Your task to perform on an android device: open app "Google Chrome" Image 0: 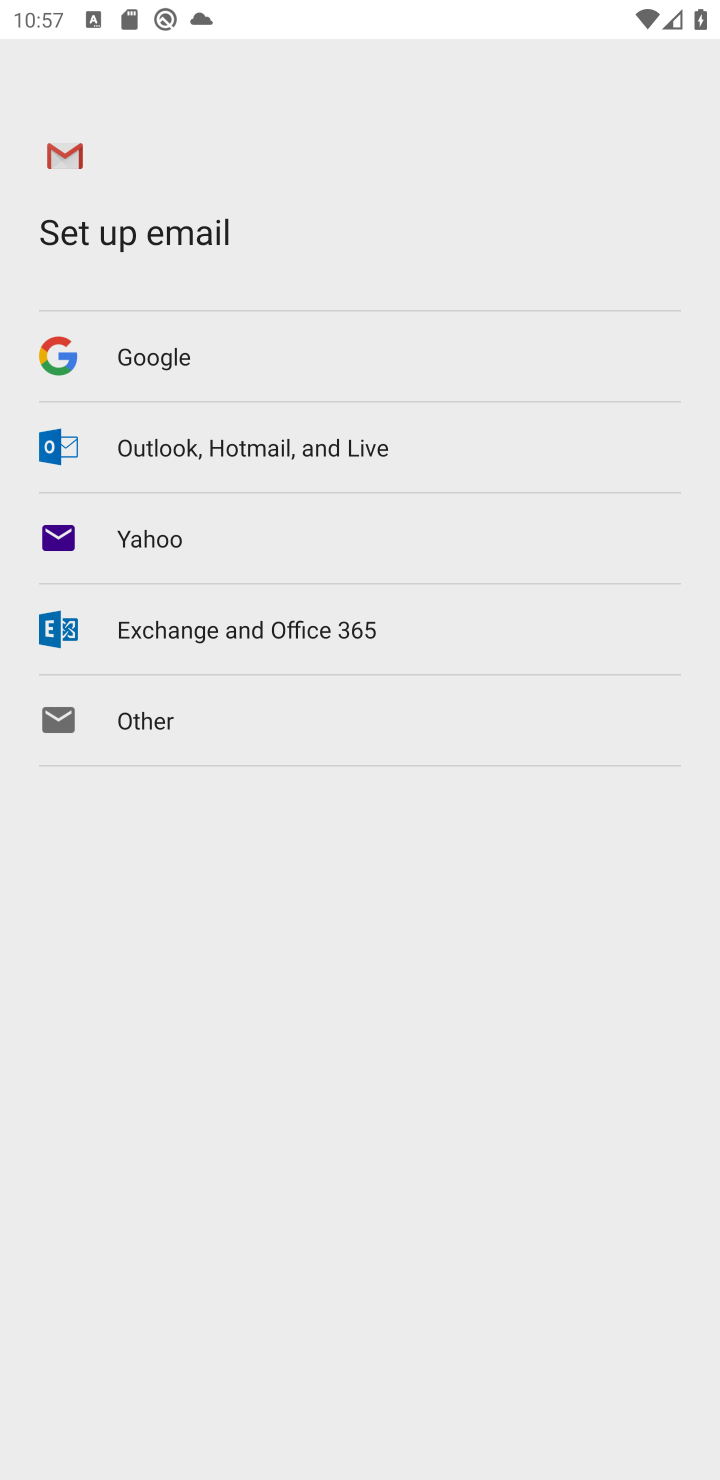
Step 0: press home button
Your task to perform on an android device: open app "Google Chrome" Image 1: 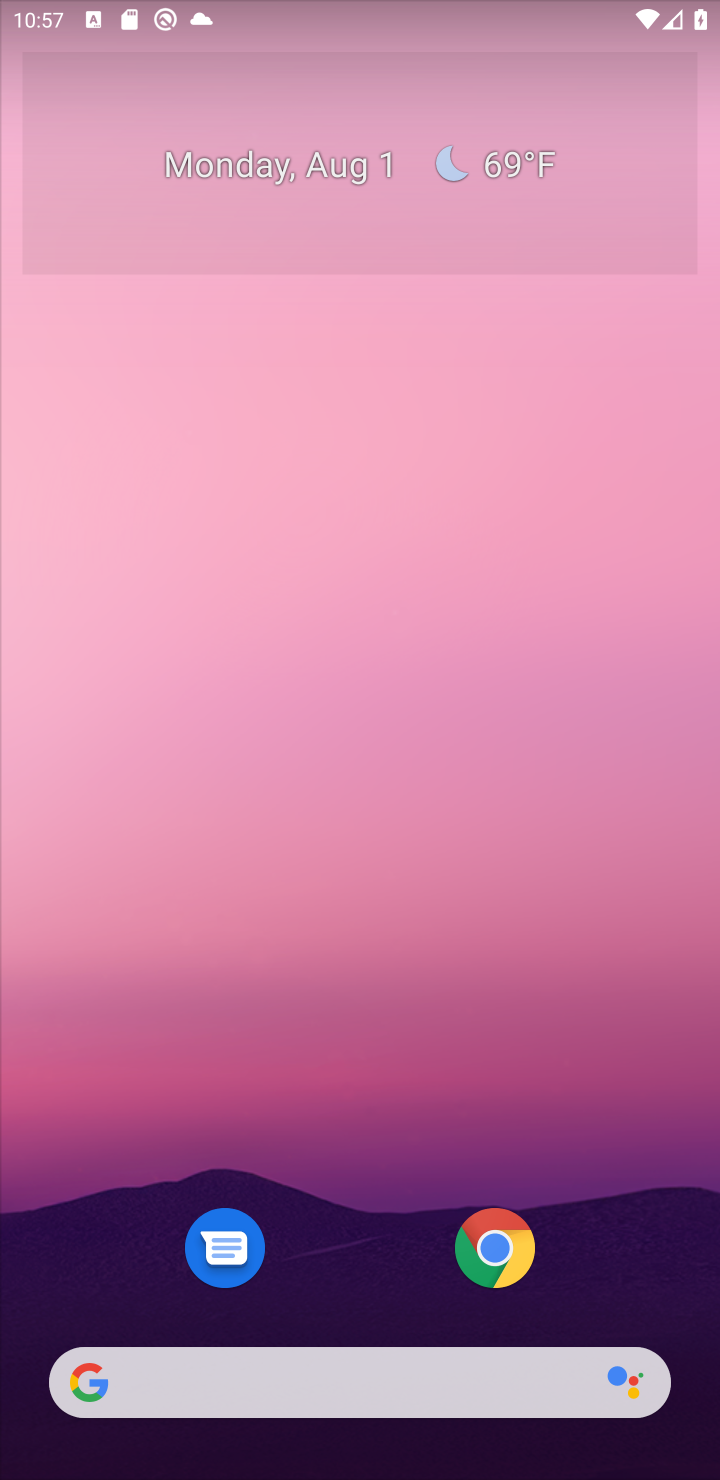
Step 1: drag from (339, 1275) to (368, 262)
Your task to perform on an android device: open app "Google Chrome" Image 2: 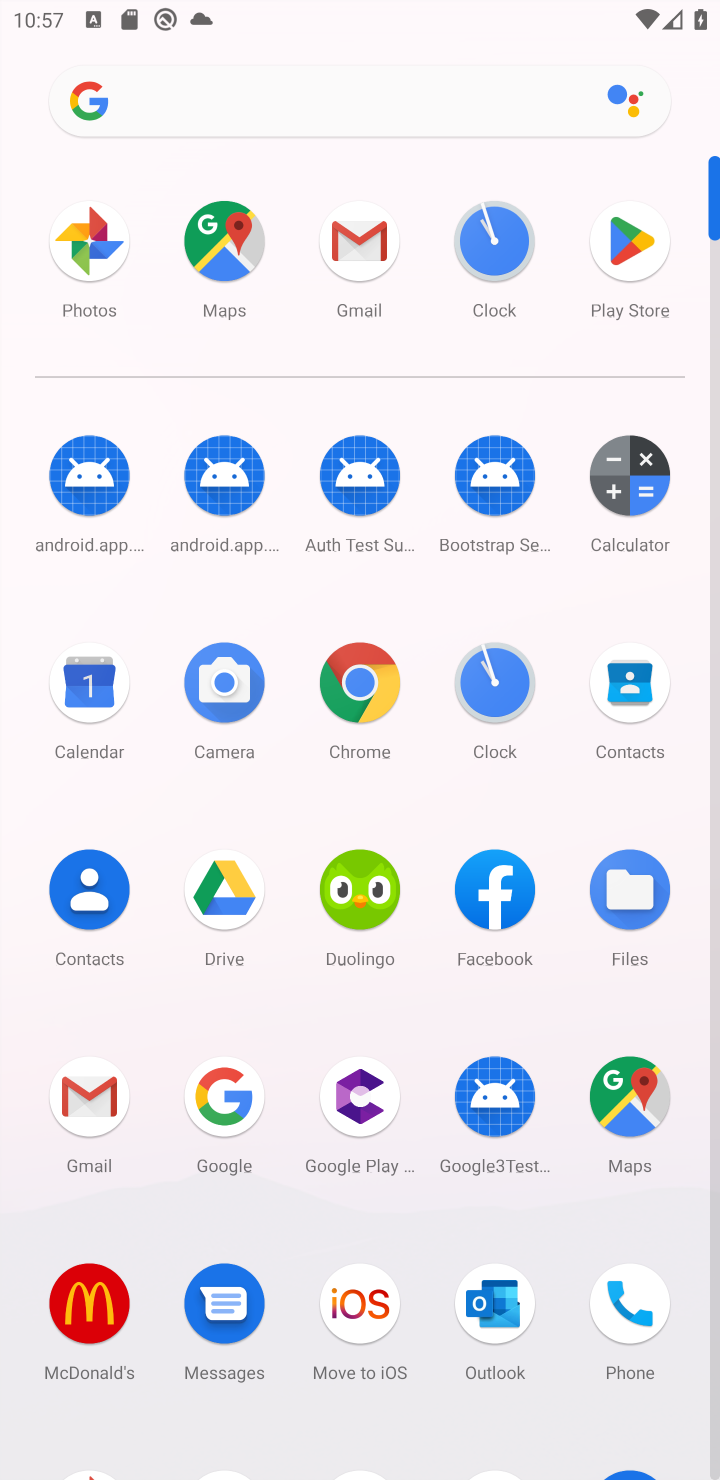
Step 2: click (637, 248)
Your task to perform on an android device: open app "Google Chrome" Image 3: 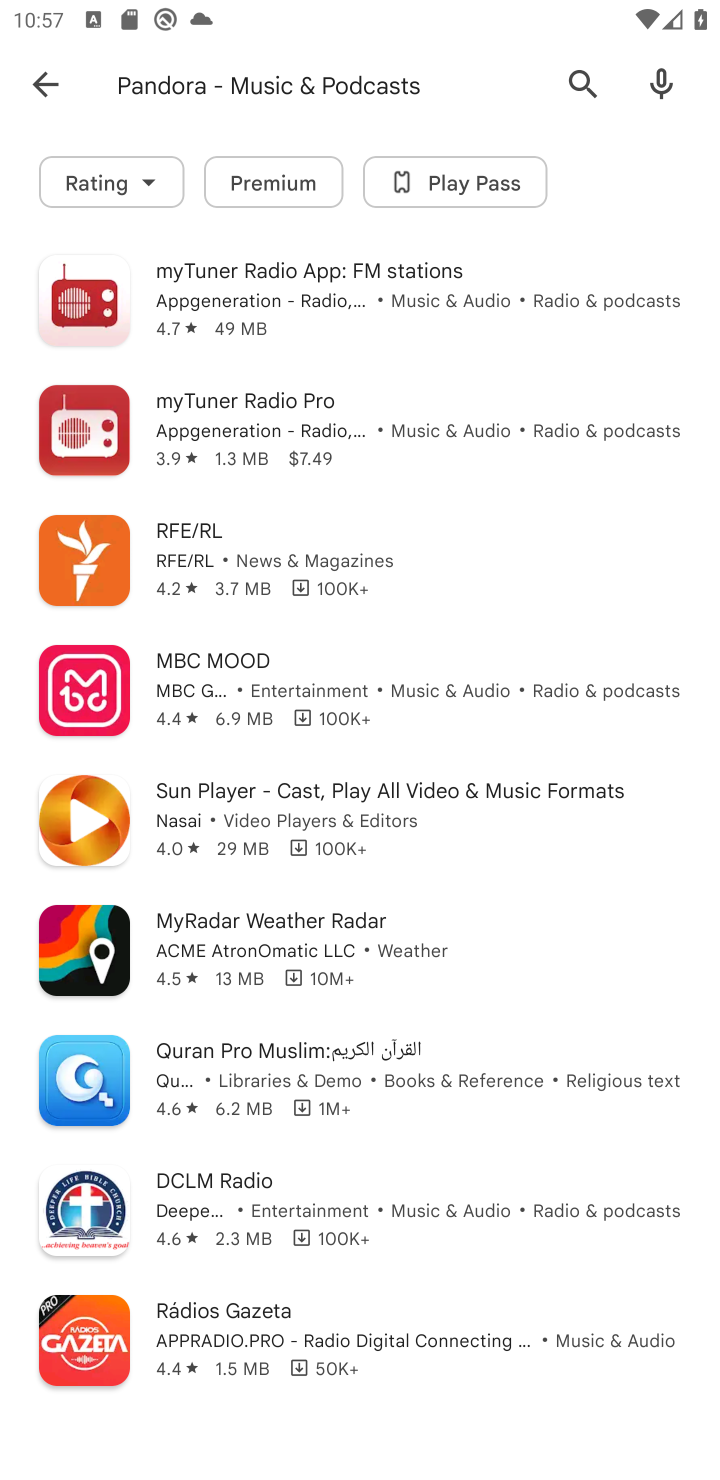
Step 3: click (426, 98)
Your task to perform on an android device: open app "Google Chrome" Image 4: 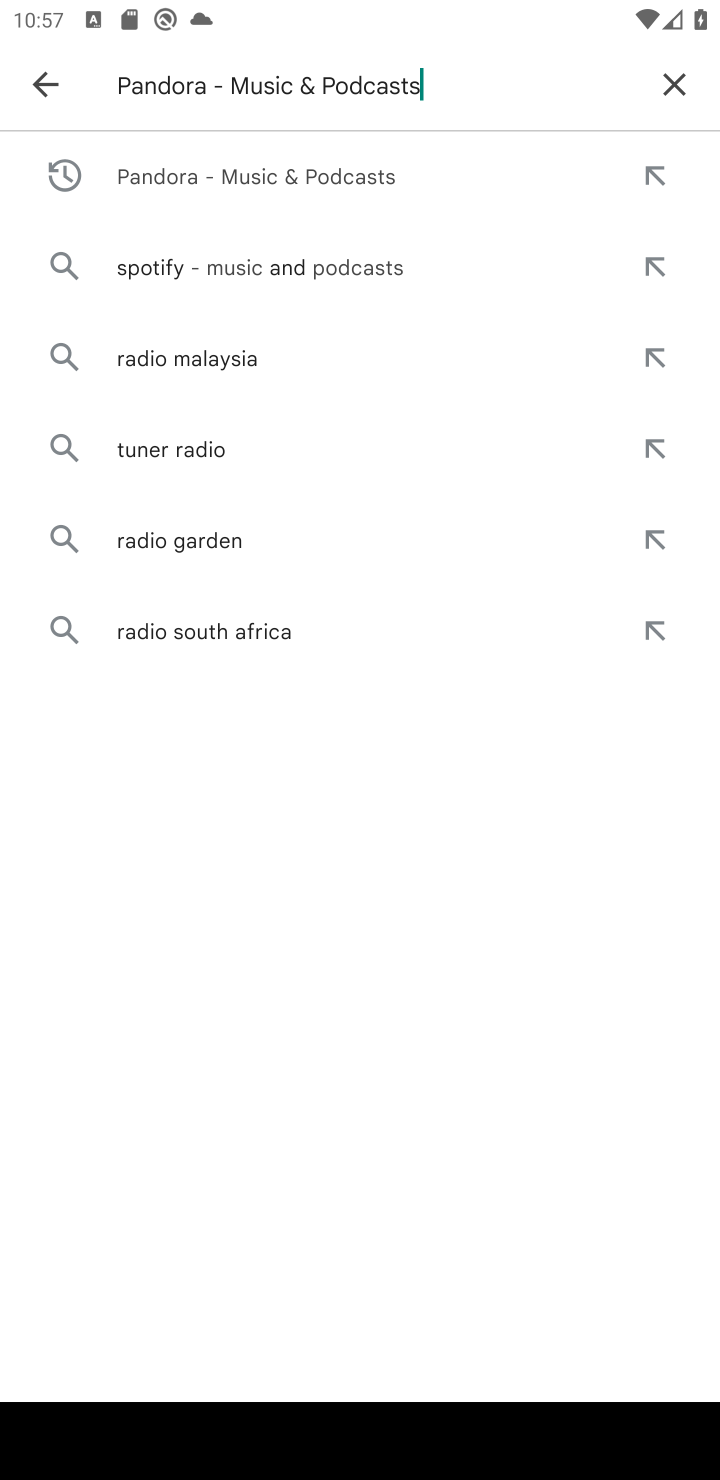
Step 4: click (687, 76)
Your task to perform on an android device: open app "Google Chrome" Image 5: 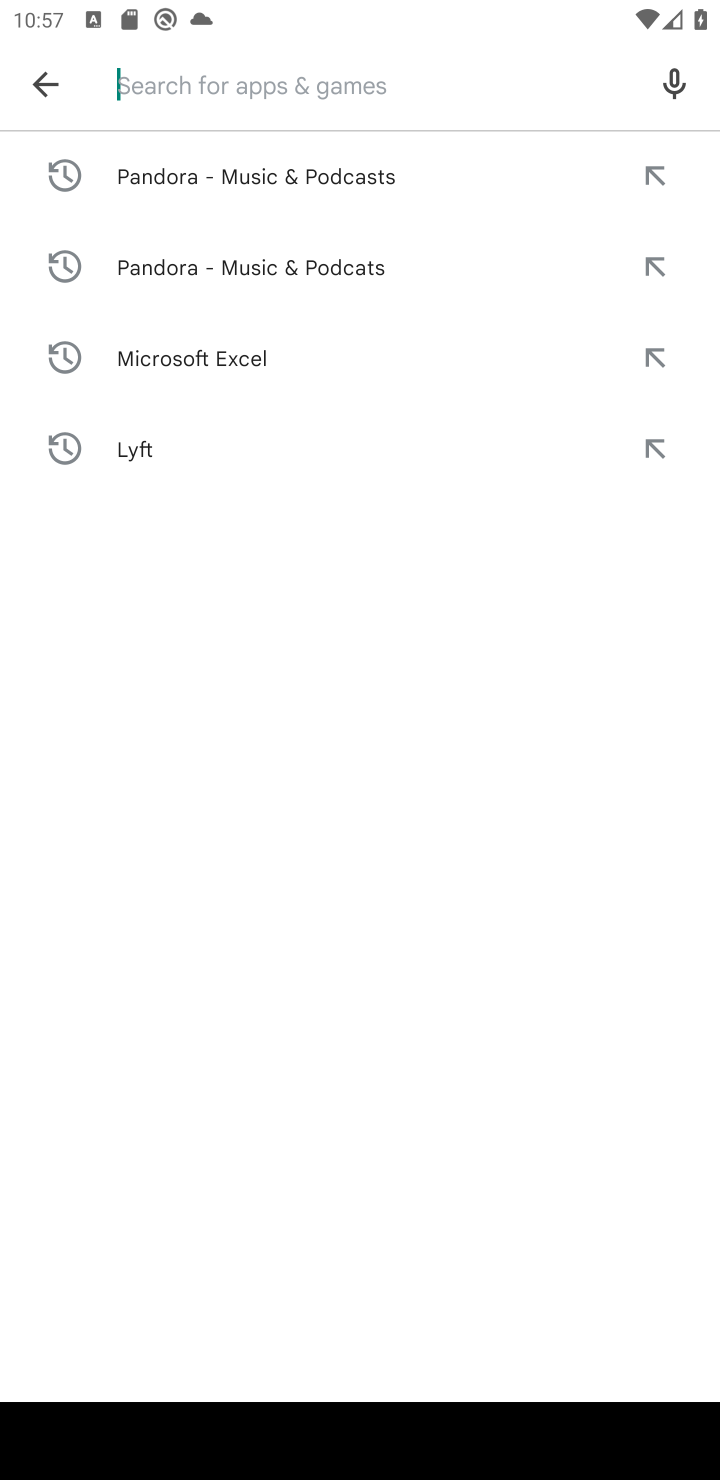
Step 5: type "Google Chrome"
Your task to perform on an android device: open app "Google Chrome" Image 6: 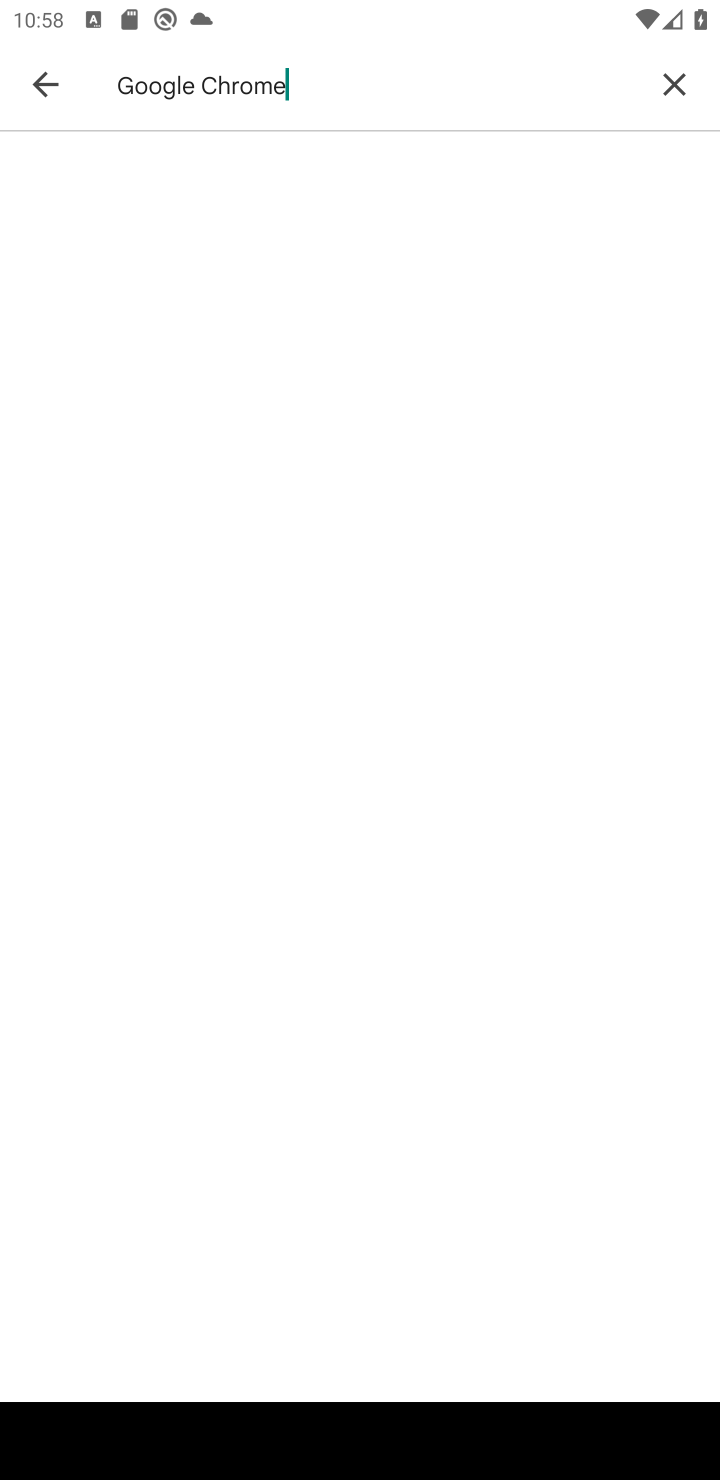
Step 6: press enter
Your task to perform on an android device: open app "Google Chrome" Image 7: 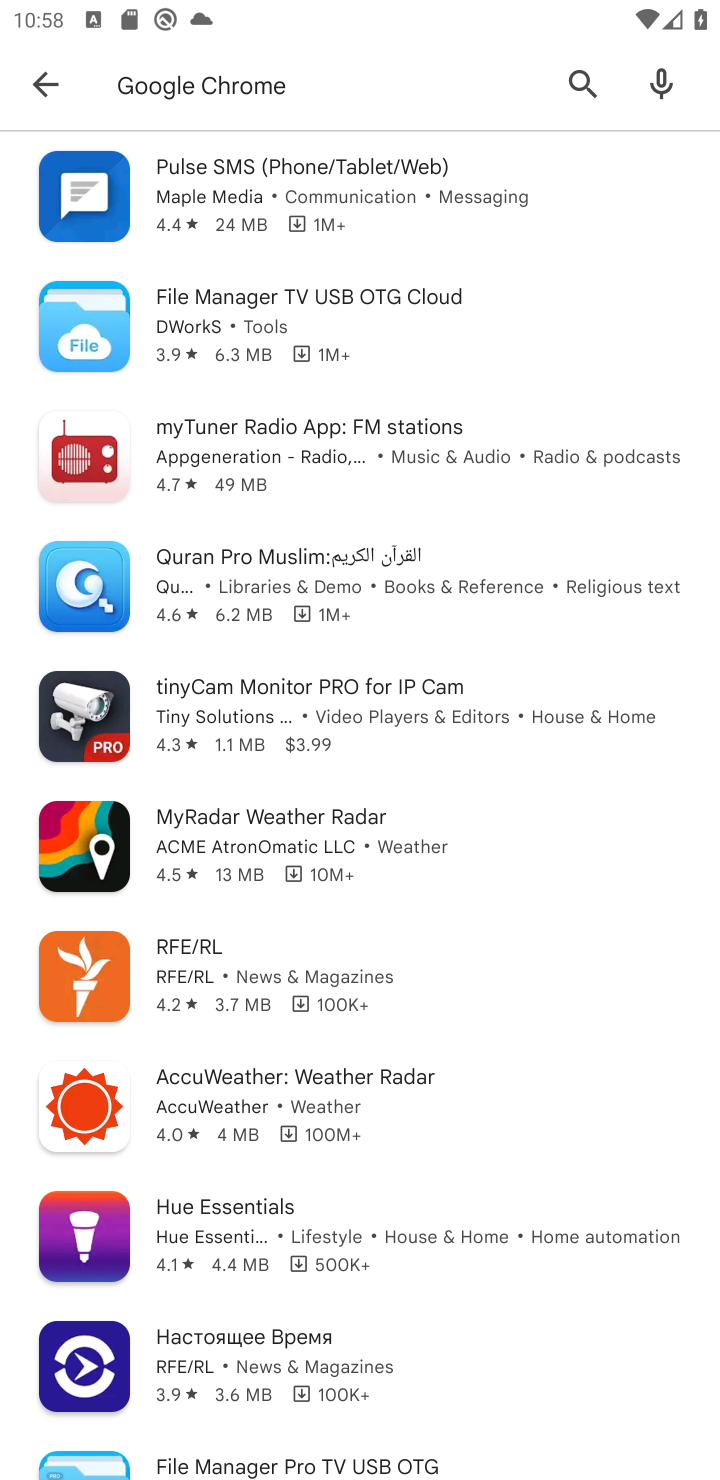
Step 7: task complete